Your task to perform on an android device: check battery use Image 0: 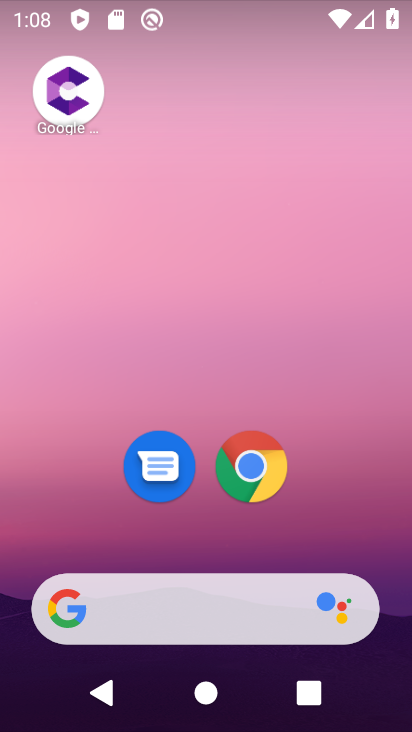
Step 0: drag from (349, 530) to (278, 2)
Your task to perform on an android device: check battery use Image 1: 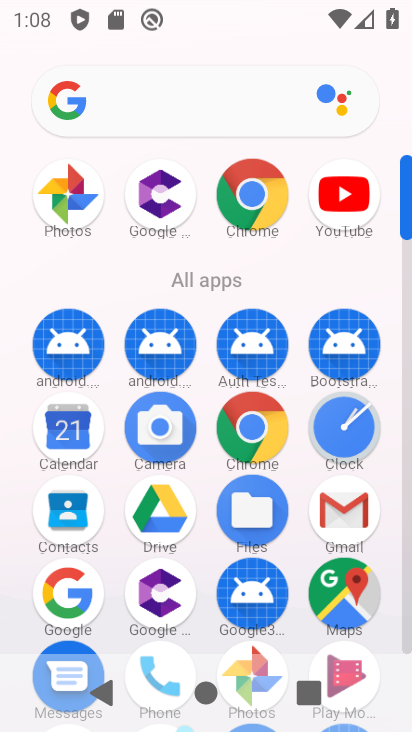
Step 1: drag from (2, 478) to (2, 164)
Your task to perform on an android device: check battery use Image 2: 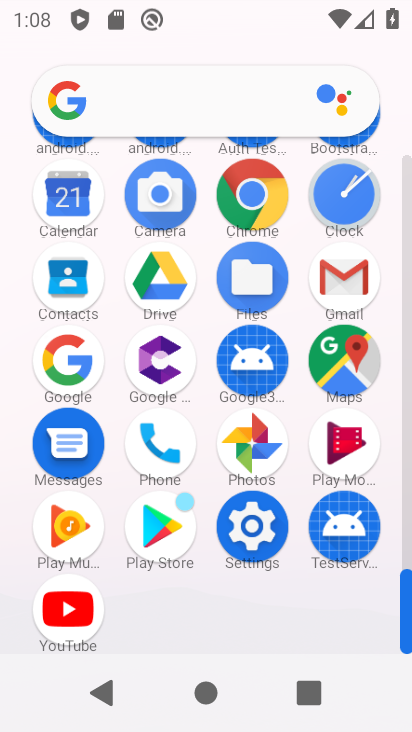
Step 2: click (251, 528)
Your task to perform on an android device: check battery use Image 3: 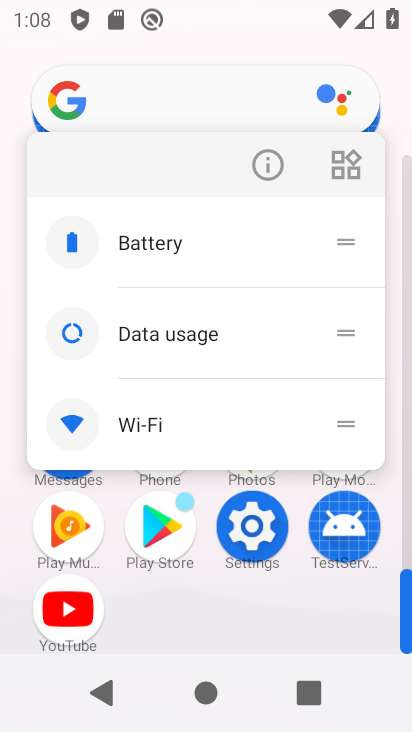
Step 3: click (251, 528)
Your task to perform on an android device: check battery use Image 4: 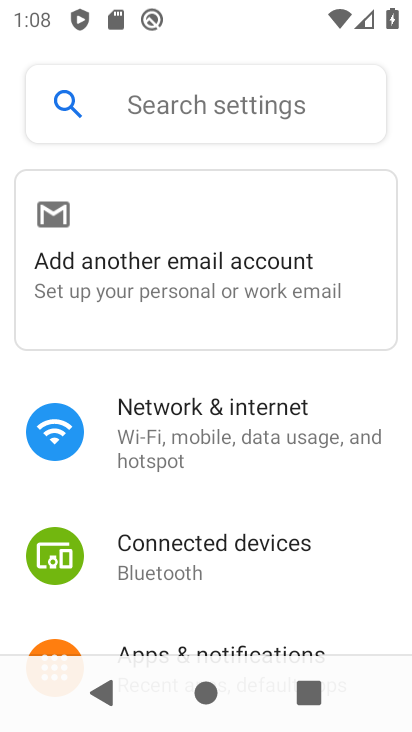
Step 4: drag from (246, 492) to (237, 202)
Your task to perform on an android device: check battery use Image 5: 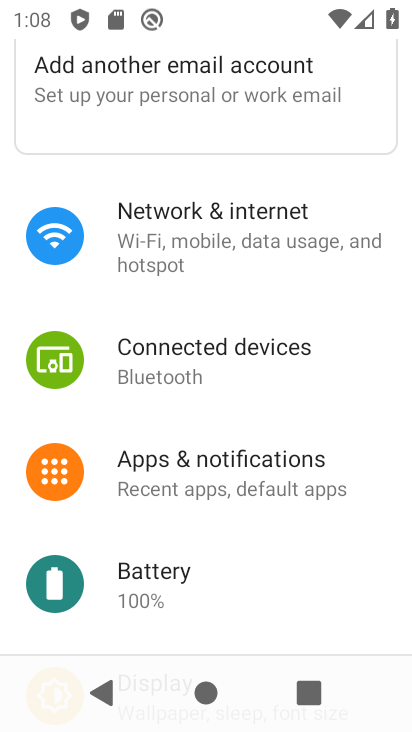
Step 5: drag from (296, 441) to (296, 143)
Your task to perform on an android device: check battery use Image 6: 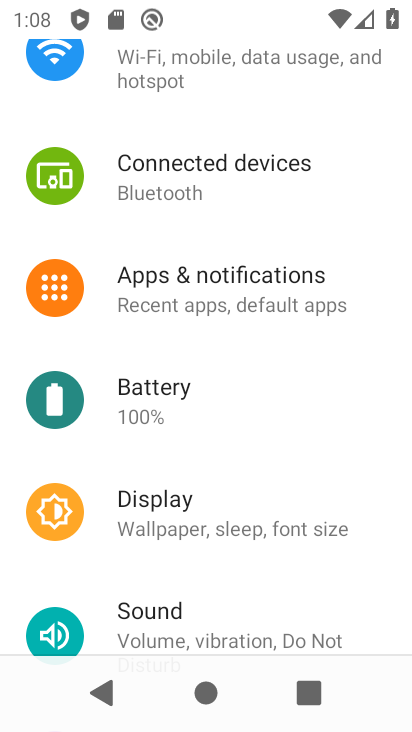
Step 6: click (191, 399)
Your task to perform on an android device: check battery use Image 7: 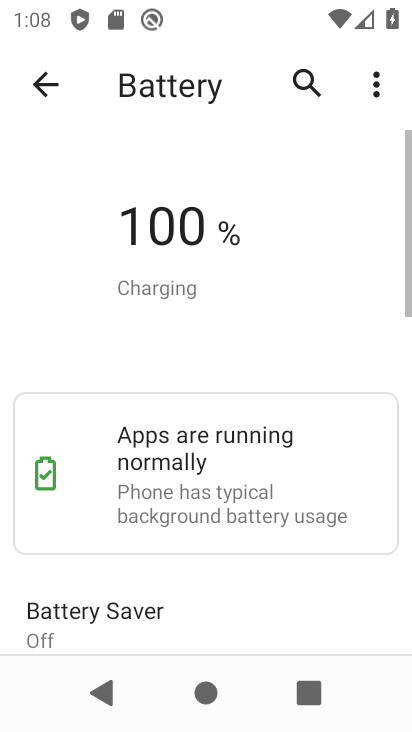
Step 7: drag from (251, 526) to (270, 166)
Your task to perform on an android device: check battery use Image 8: 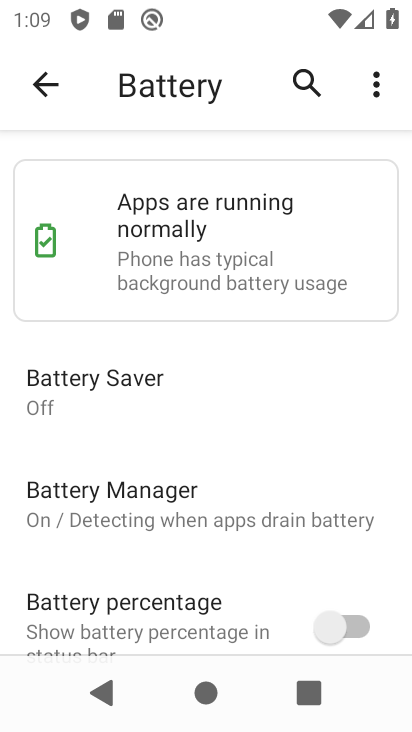
Step 8: drag from (197, 537) to (200, 199)
Your task to perform on an android device: check battery use Image 9: 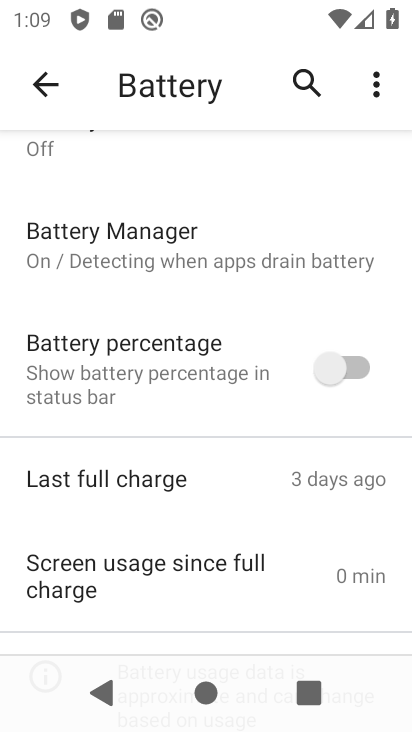
Step 9: drag from (200, 196) to (201, 556)
Your task to perform on an android device: check battery use Image 10: 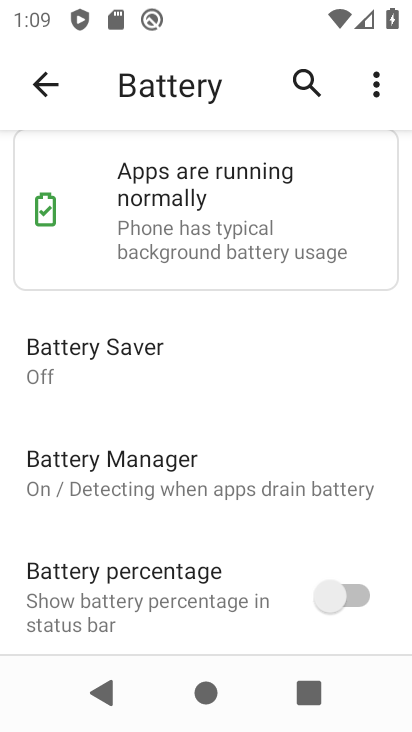
Step 10: drag from (251, 263) to (249, 440)
Your task to perform on an android device: check battery use Image 11: 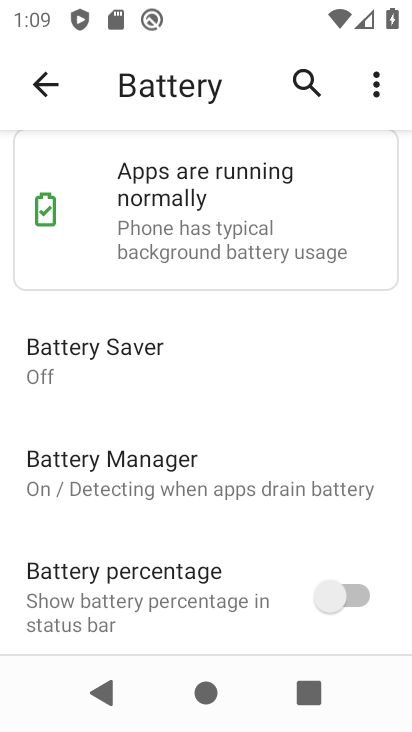
Step 11: click (362, 99)
Your task to perform on an android device: check battery use Image 12: 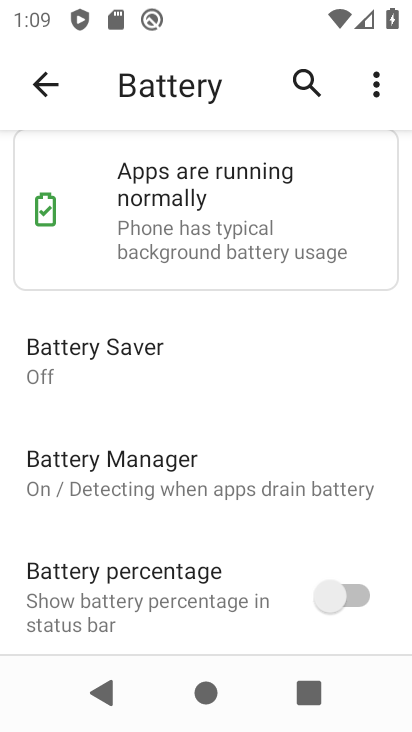
Step 12: click (372, 83)
Your task to perform on an android device: check battery use Image 13: 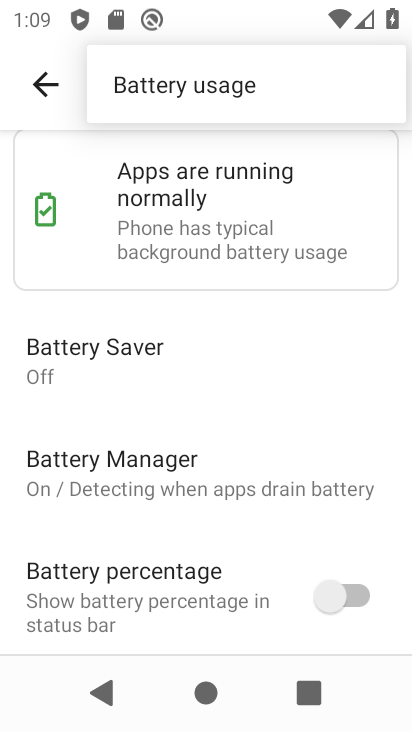
Step 13: click (242, 85)
Your task to perform on an android device: check battery use Image 14: 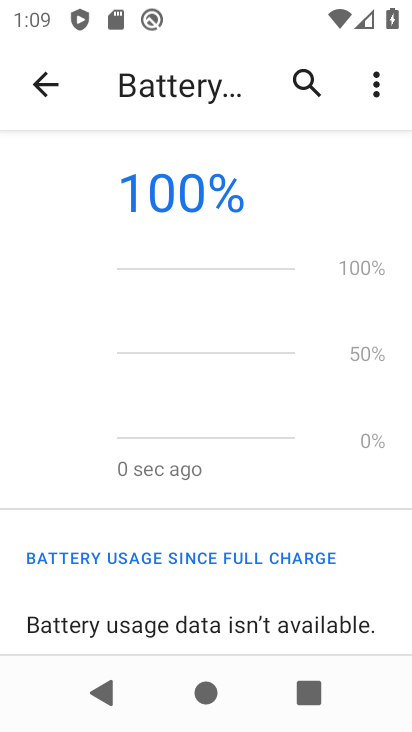
Step 14: task complete